Your task to perform on an android device: change notification settings in the gmail app Image 0: 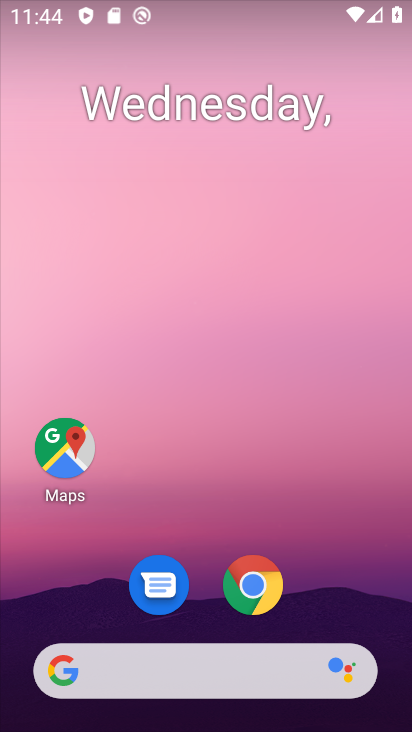
Step 0: drag from (327, 539) to (321, 73)
Your task to perform on an android device: change notification settings in the gmail app Image 1: 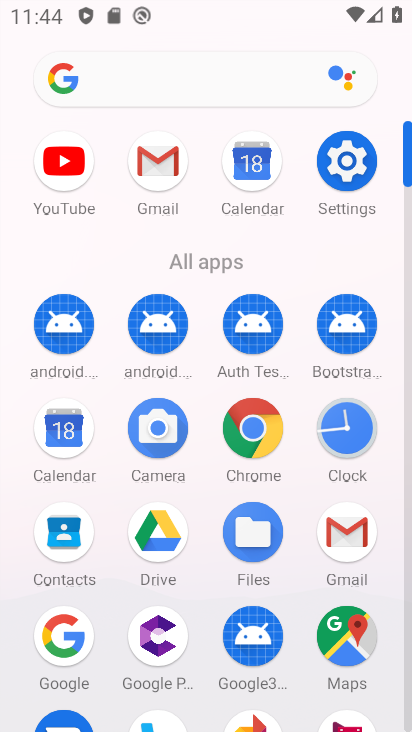
Step 1: click (160, 164)
Your task to perform on an android device: change notification settings in the gmail app Image 2: 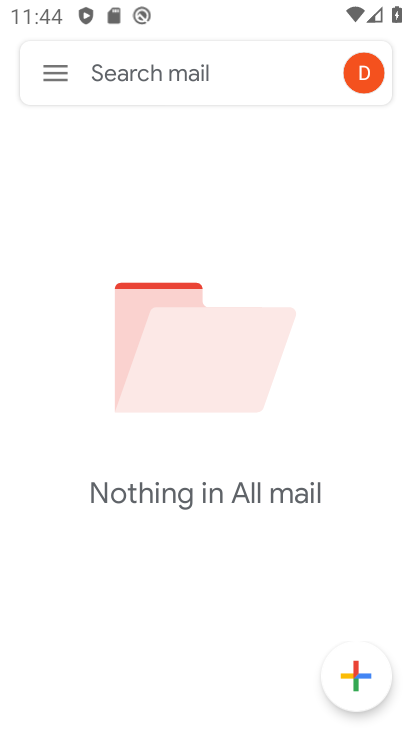
Step 2: click (58, 70)
Your task to perform on an android device: change notification settings in the gmail app Image 3: 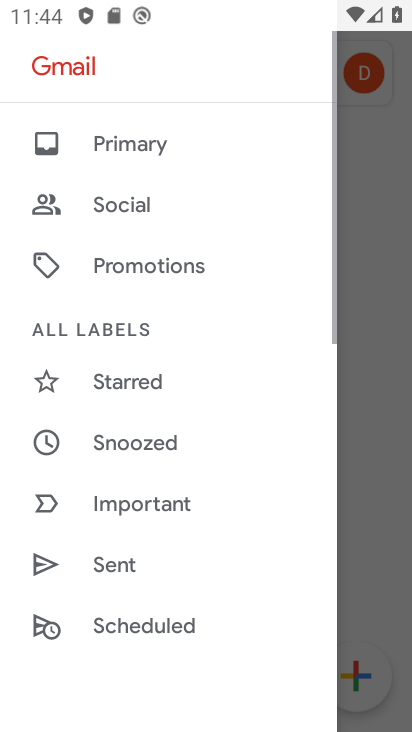
Step 3: drag from (178, 497) to (183, 110)
Your task to perform on an android device: change notification settings in the gmail app Image 4: 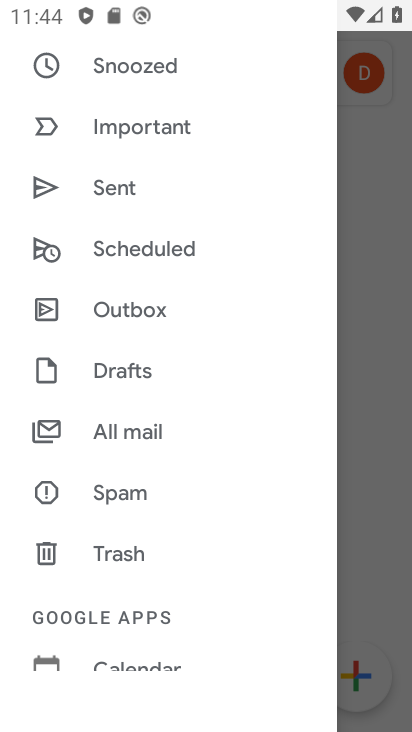
Step 4: drag from (180, 534) to (189, 72)
Your task to perform on an android device: change notification settings in the gmail app Image 5: 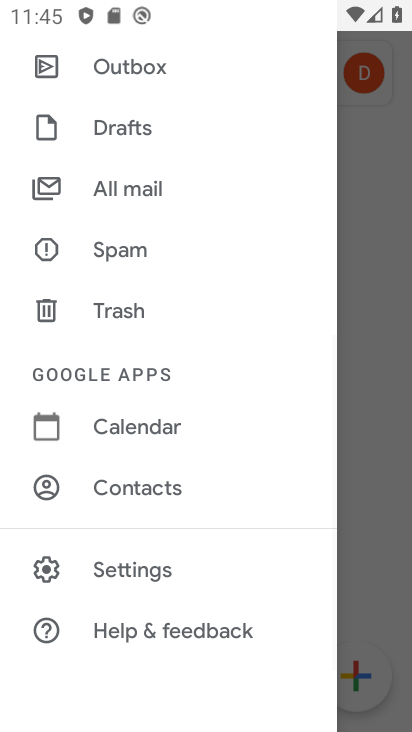
Step 5: click (155, 568)
Your task to perform on an android device: change notification settings in the gmail app Image 6: 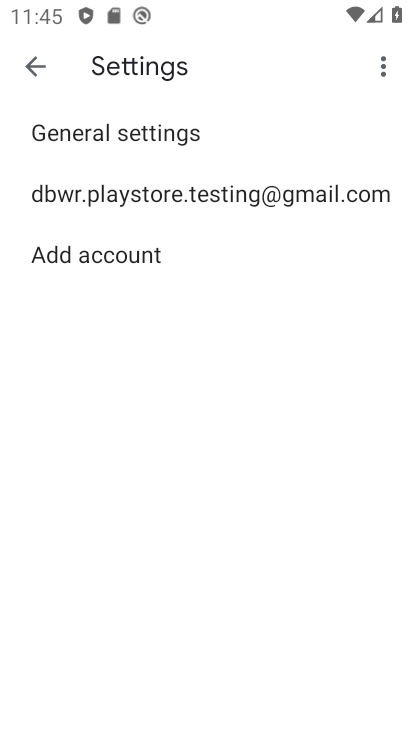
Step 6: click (192, 135)
Your task to perform on an android device: change notification settings in the gmail app Image 7: 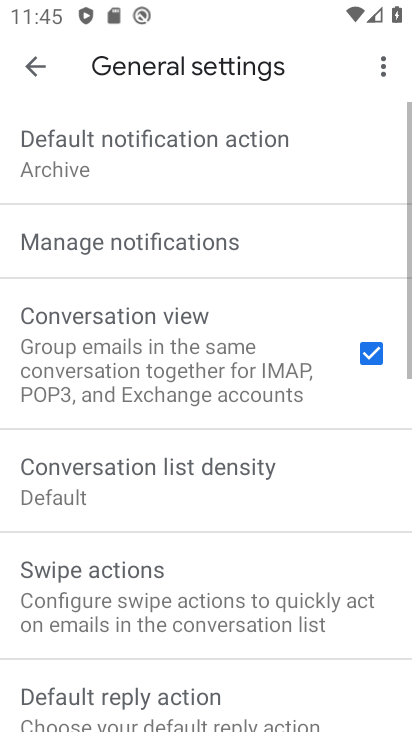
Step 7: click (218, 236)
Your task to perform on an android device: change notification settings in the gmail app Image 8: 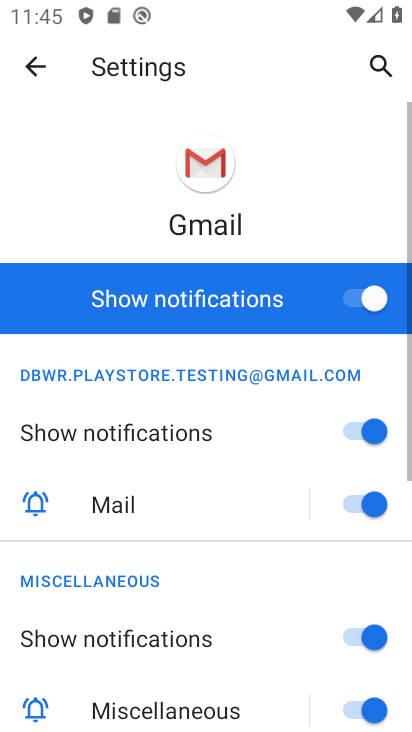
Step 8: click (360, 292)
Your task to perform on an android device: change notification settings in the gmail app Image 9: 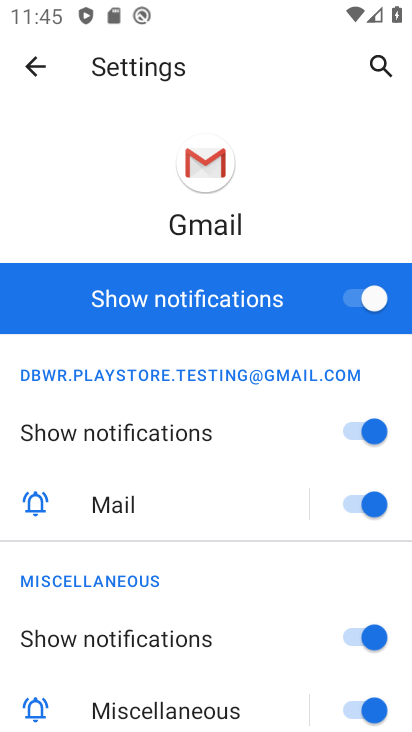
Step 9: click (364, 293)
Your task to perform on an android device: change notification settings in the gmail app Image 10: 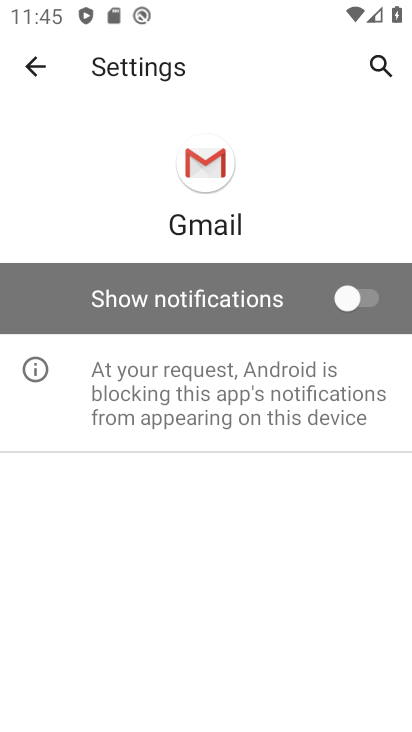
Step 10: task complete